Your task to perform on an android device: Set the phone to "Do not disturb". Image 0: 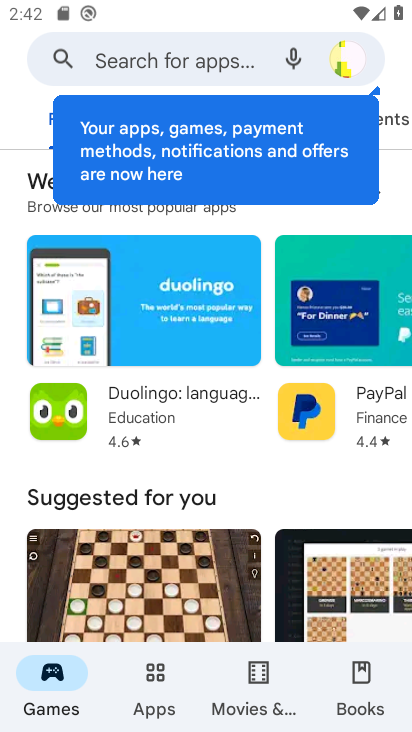
Step 0: press home button
Your task to perform on an android device: Set the phone to "Do not disturb". Image 1: 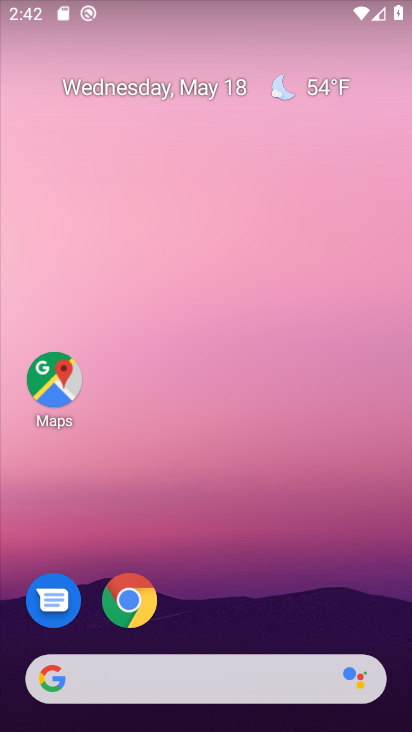
Step 1: drag from (210, 596) to (249, 126)
Your task to perform on an android device: Set the phone to "Do not disturb". Image 2: 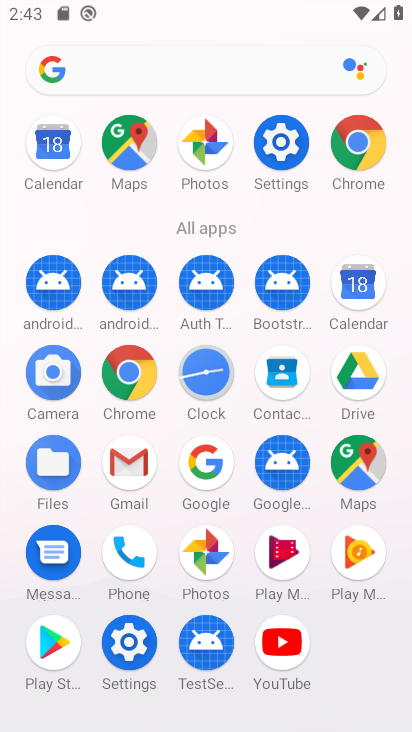
Step 2: click (139, 644)
Your task to perform on an android device: Set the phone to "Do not disturb". Image 3: 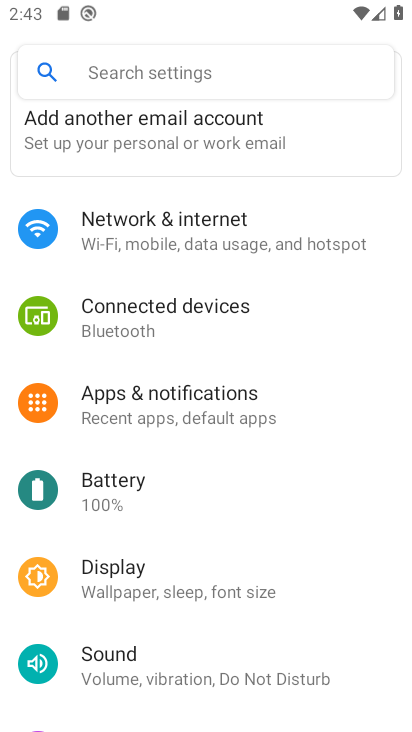
Step 3: click (133, 660)
Your task to perform on an android device: Set the phone to "Do not disturb". Image 4: 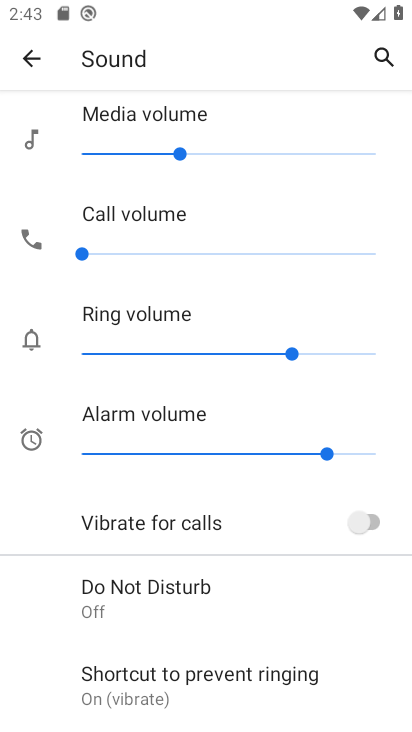
Step 4: click (189, 599)
Your task to perform on an android device: Set the phone to "Do not disturb". Image 5: 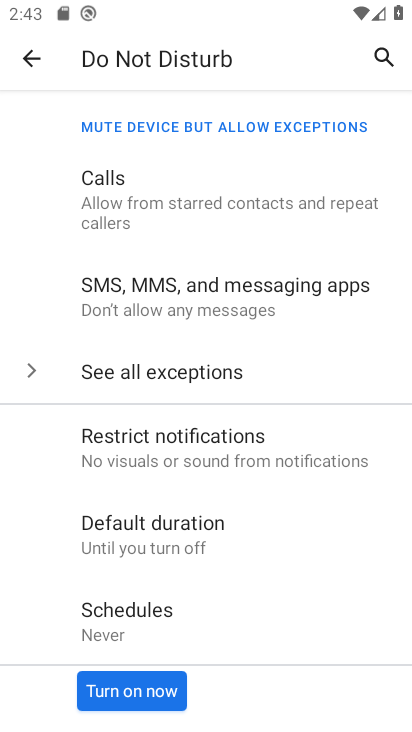
Step 5: click (135, 688)
Your task to perform on an android device: Set the phone to "Do not disturb". Image 6: 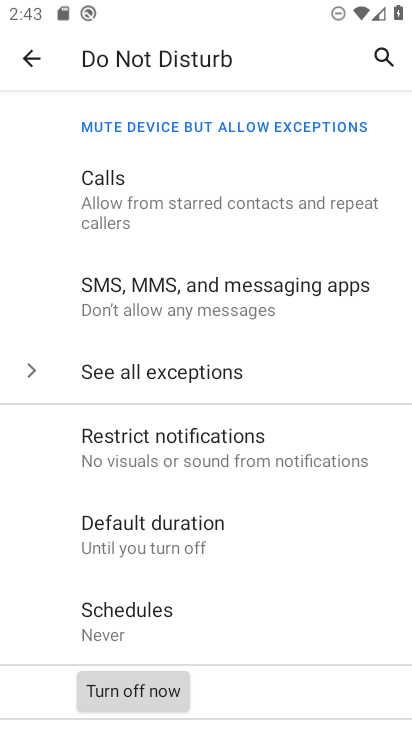
Step 6: task complete